Your task to perform on an android device: Open the calendar app, open the side menu, and click the "Day" option Image 0: 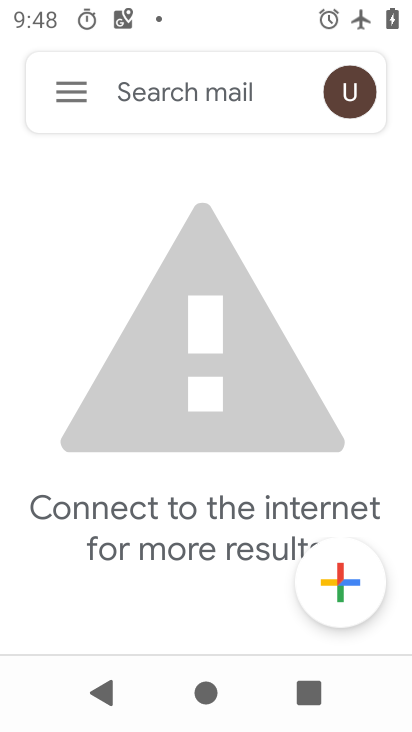
Step 0: press home button
Your task to perform on an android device: Open the calendar app, open the side menu, and click the "Day" option Image 1: 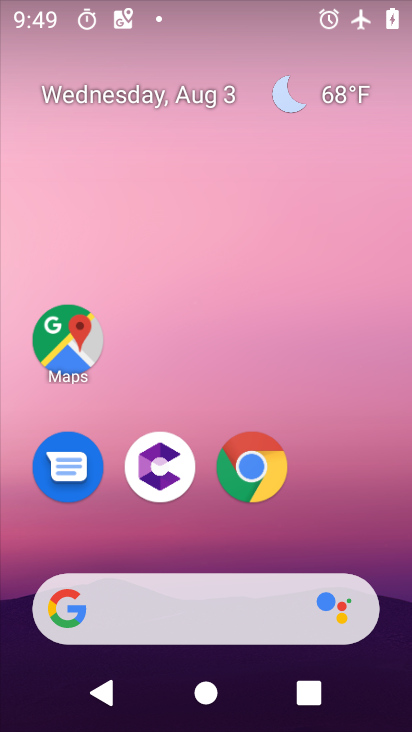
Step 1: drag from (358, 518) to (335, 85)
Your task to perform on an android device: Open the calendar app, open the side menu, and click the "Day" option Image 2: 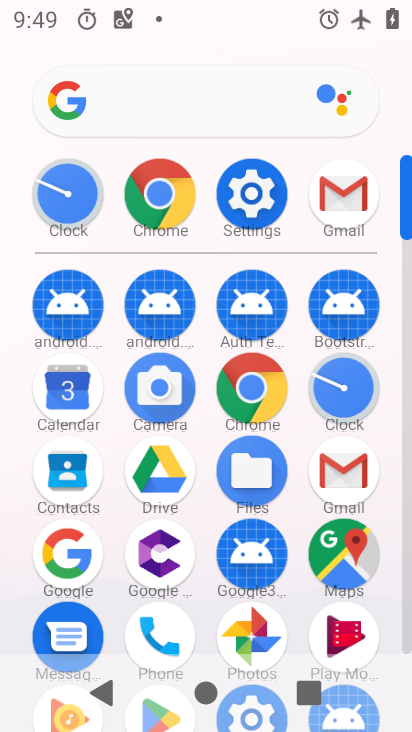
Step 2: click (73, 385)
Your task to perform on an android device: Open the calendar app, open the side menu, and click the "Day" option Image 3: 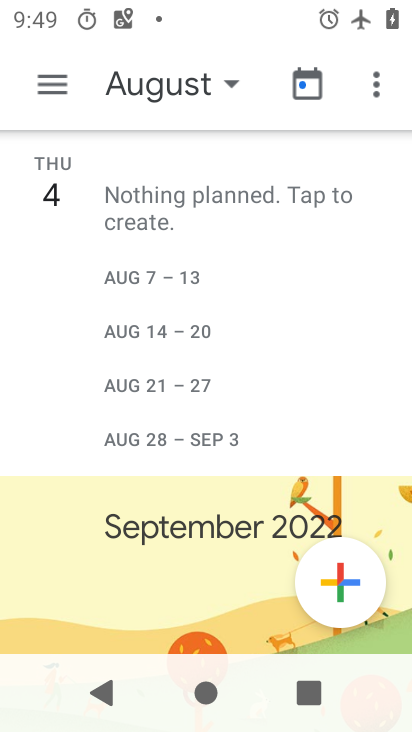
Step 3: click (56, 81)
Your task to perform on an android device: Open the calendar app, open the side menu, and click the "Day" option Image 4: 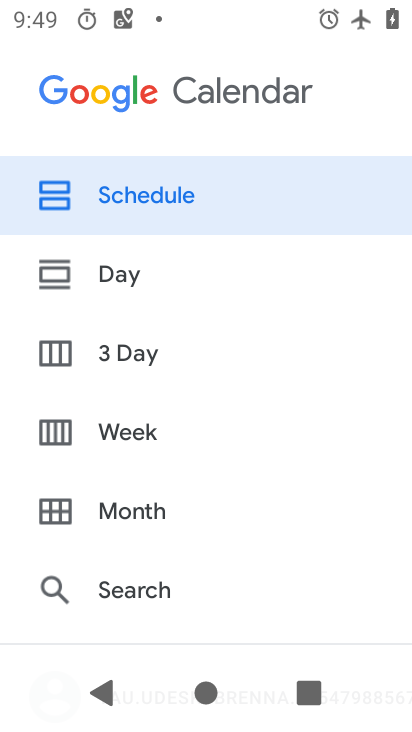
Step 4: click (124, 261)
Your task to perform on an android device: Open the calendar app, open the side menu, and click the "Day" option Image 5: 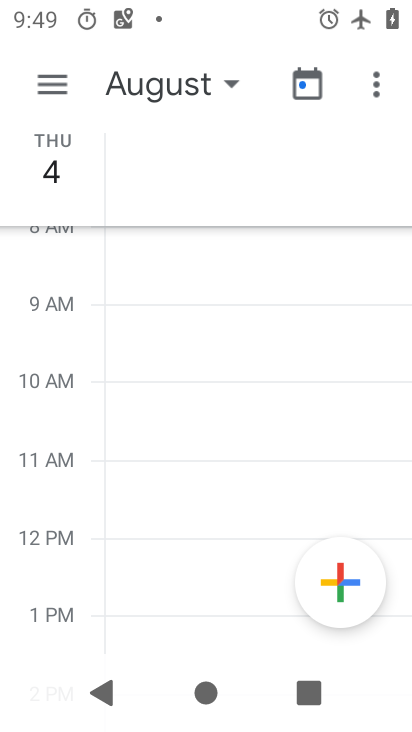
Step 5: task complete